Your task to perform on an android device: clear history in the chrome app Image 0: 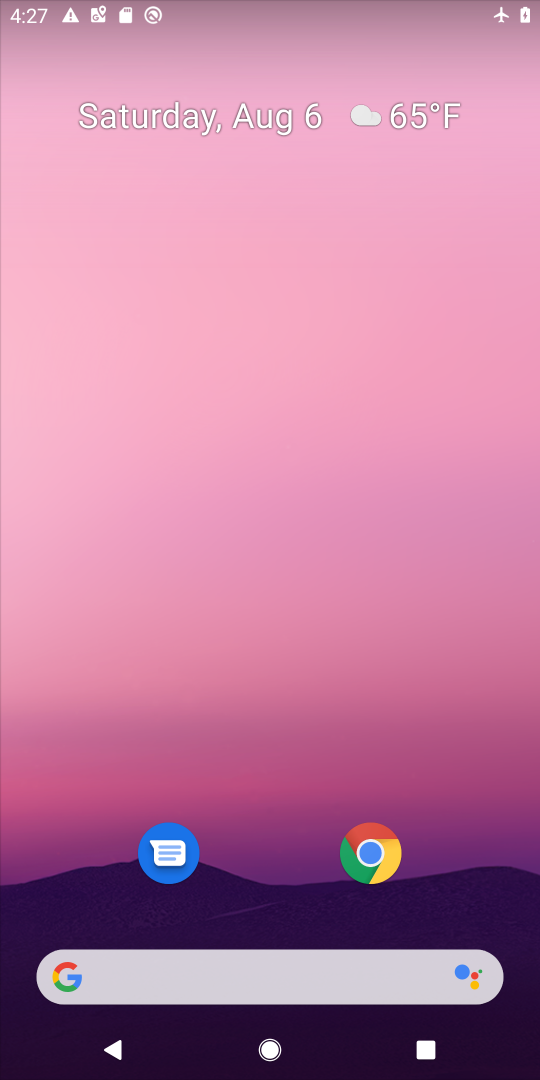
Step 0: click (369, 852)
Your task to perform on an android device: clear history in the chrome app Image 1: 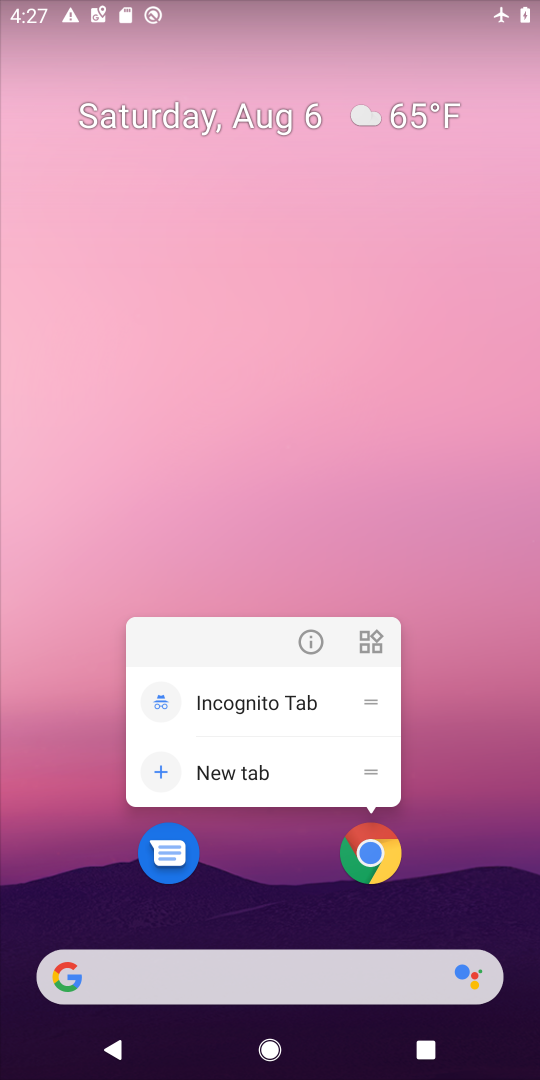
Step 1: click (385, 851)
Your task to perform on an android device: clear history in the chrome app Image 2: 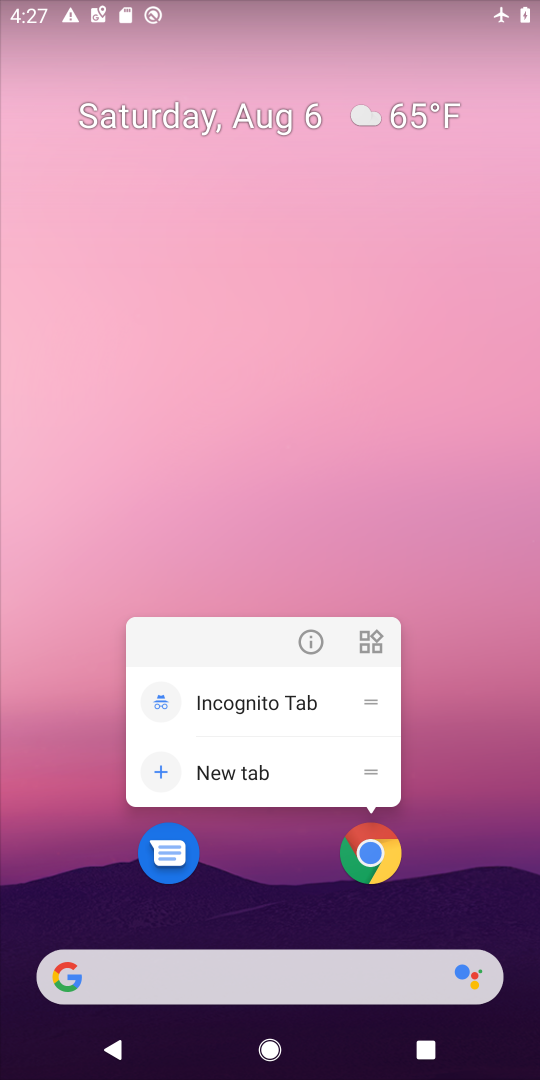
Step 2: click (372, 851)
Your task to perform on an android device: clear history in the chrome app Image 3: 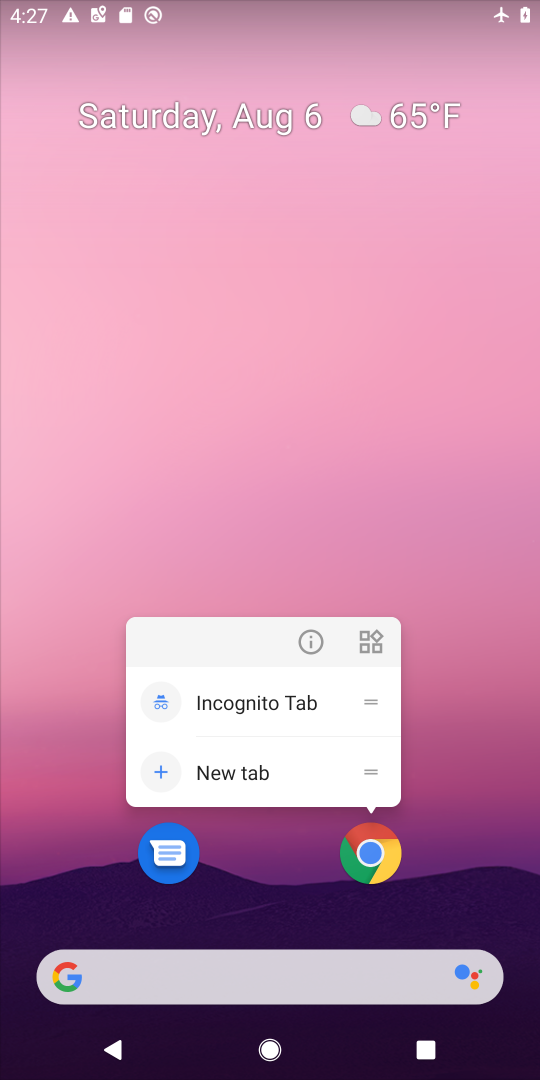
Step 3: click (376, 860)
Your task to perform on an android device: clear history in the chrome app Image 4: 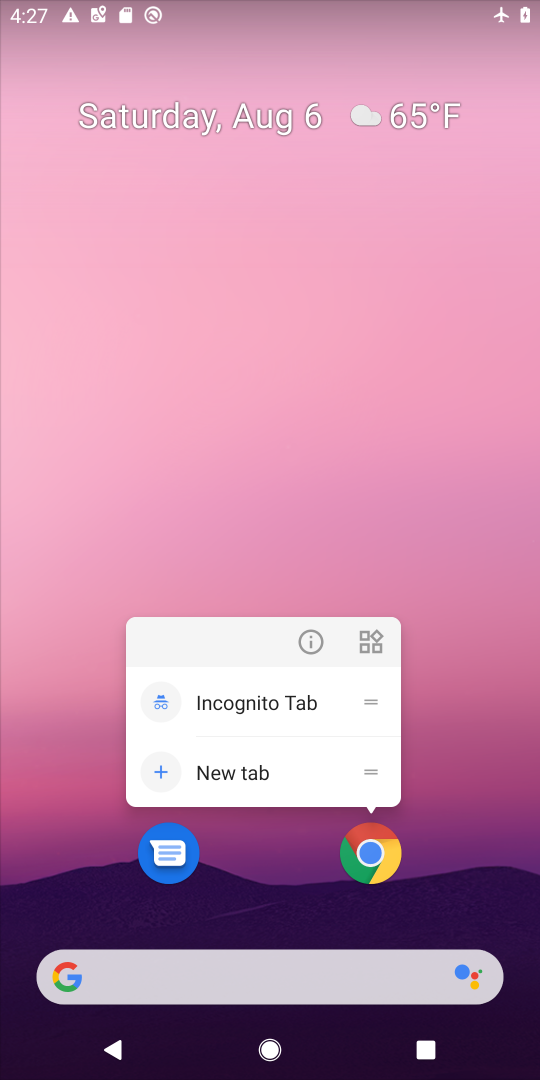
Step 4: click (384, 848)
Your task to perform on an android device: clear history in the chrome app Image 5: 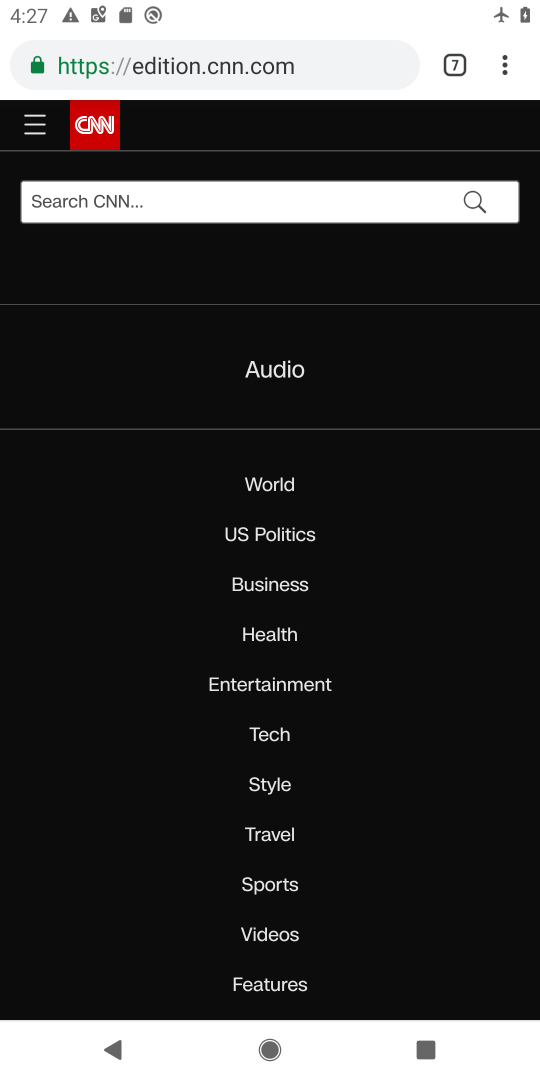
Step 5: task complete